Your task to perform on an android device: Open Chrome and go to settings Image 0: 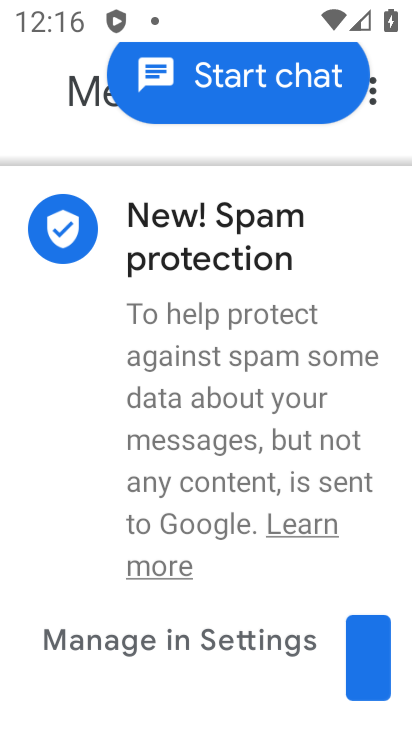
Step 0: drag from (209, 597) to (253, 189)
Your task to perform on an android device: Open Chrome and go to settings Image 1: 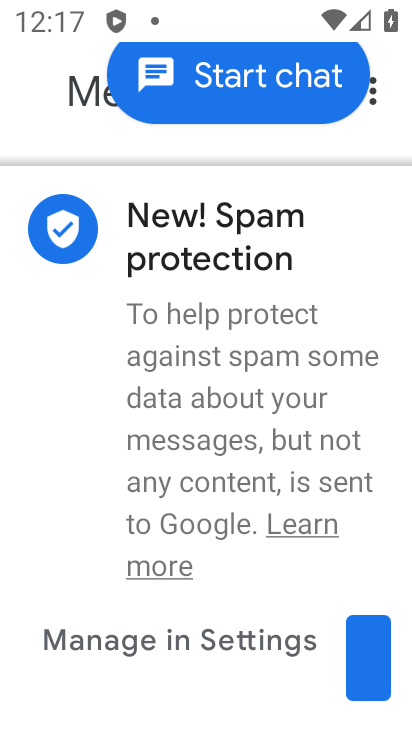
Step 1: press home button
Your task to perform on an android device: Open Chrome and go to settings Image 2: 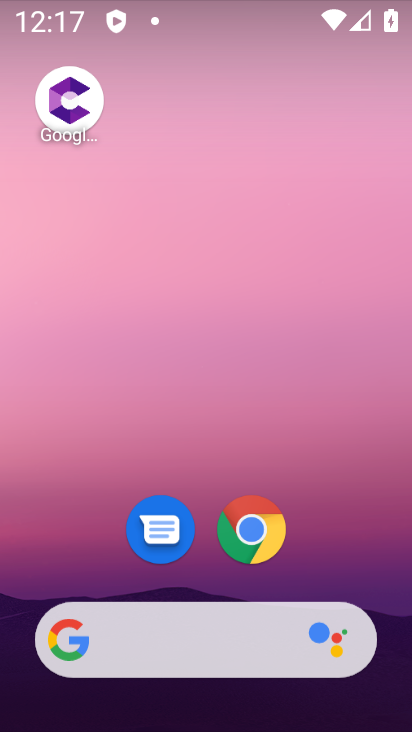
Step 2: click (251, 531)
Your task to perform on an android device: Open Chrome and go to settings Image 3: 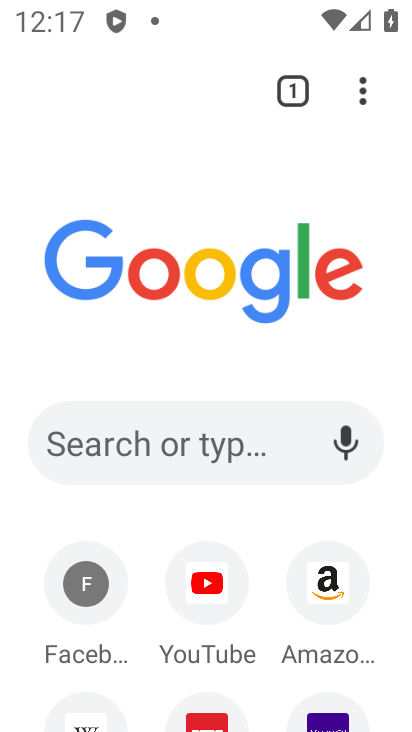
Step 3: click (365, 91)
Your task to perform on an android device: Open Chrome and go to settings Image 4: 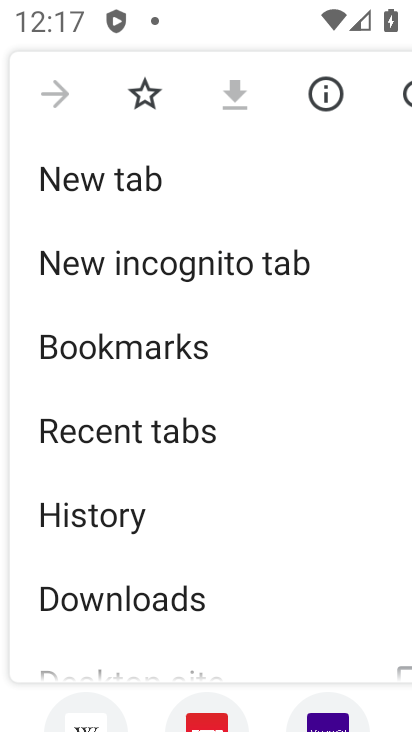
Step 4: drag from (197, 581) to (200, 185)
Your task to perform on an android device: Open Chrome and go to settings Image 5: 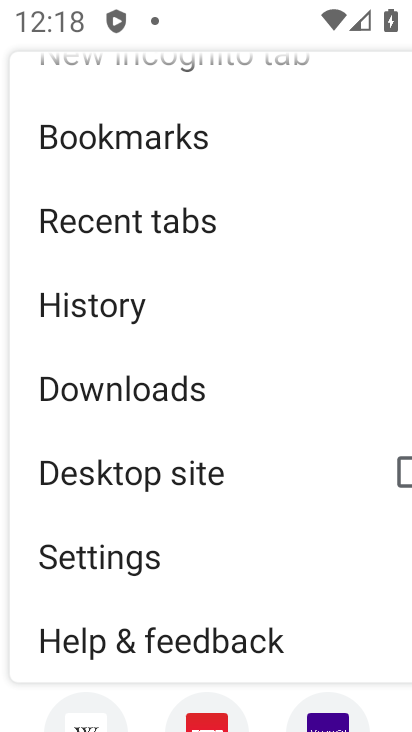
Step 5: click (138, 564)
Your task to perform on an android device: Open Chrome and go to settings Image 6: 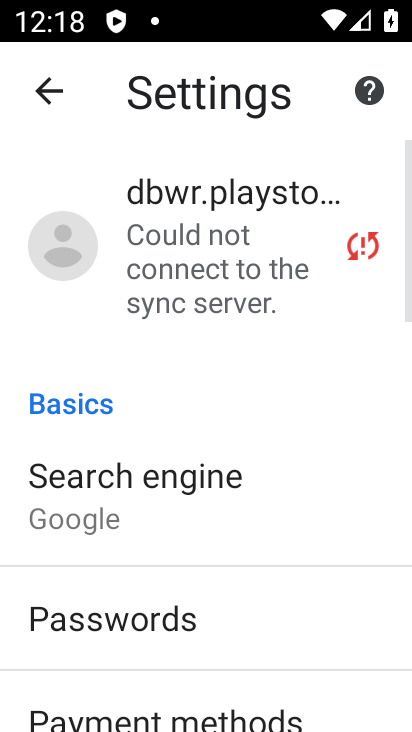
Step 6: task complete